Your task to perform on an android device: toggle pop-ups in chrome Image 0: 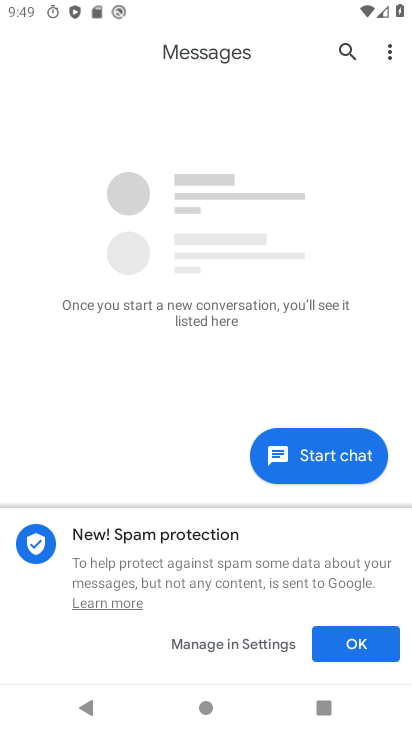
Step 0: press home button
Your task to perform on an android device: toggle pop-ups in chrome Image 1: 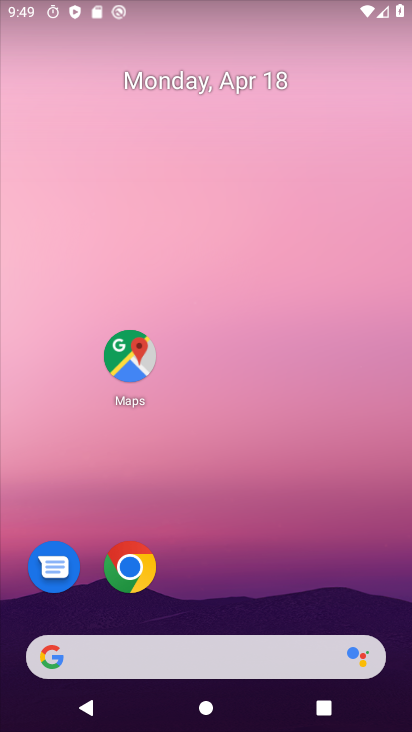
Step 1: click (138, 562)
Your task to perform on an android device: toggle pop-ups in chrome Image 2: 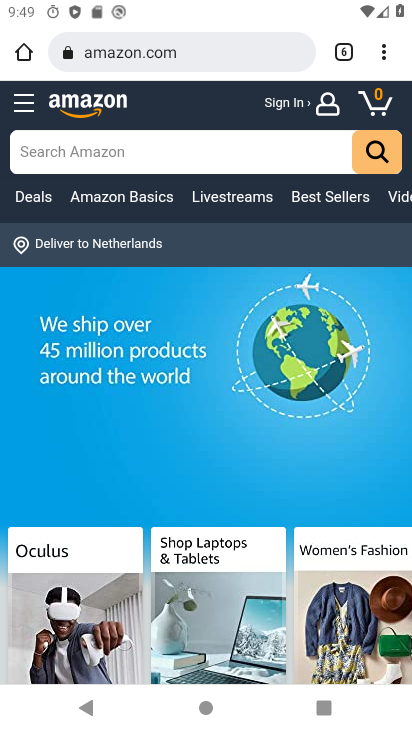
Step 2: click (376, 53)
Your task to perform on an android device: toggle pop-ups in chrome Image 3: 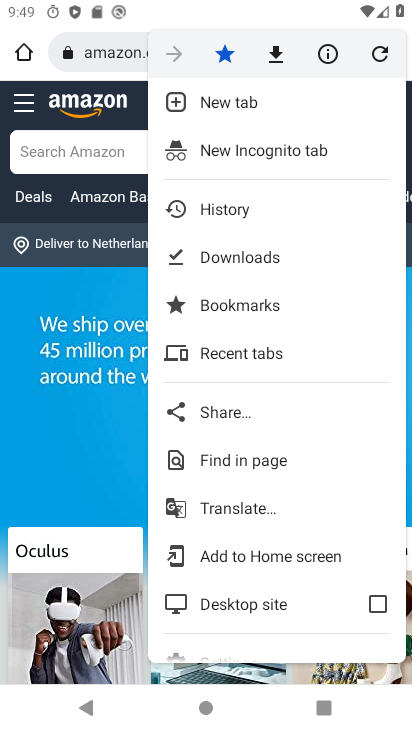
Step 3: drag from (283, 449) to (304, 291)
Your task to perform on an android device: toggle pop-ups in chrome Image 4: 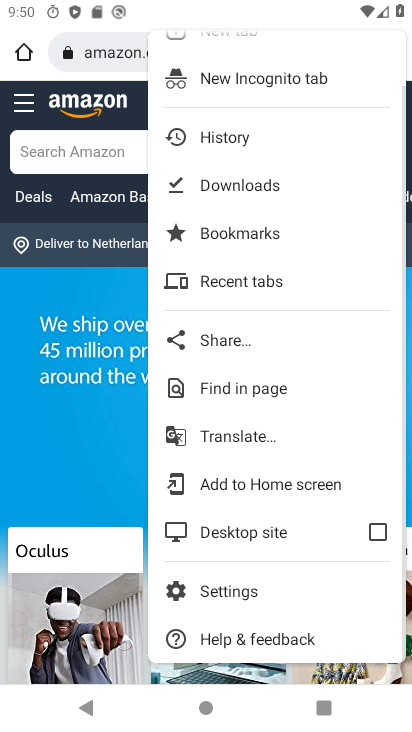
Step 4: click (219, 592)
Your task to perform on an android device: toggle pop-ups in chrome Image 5: 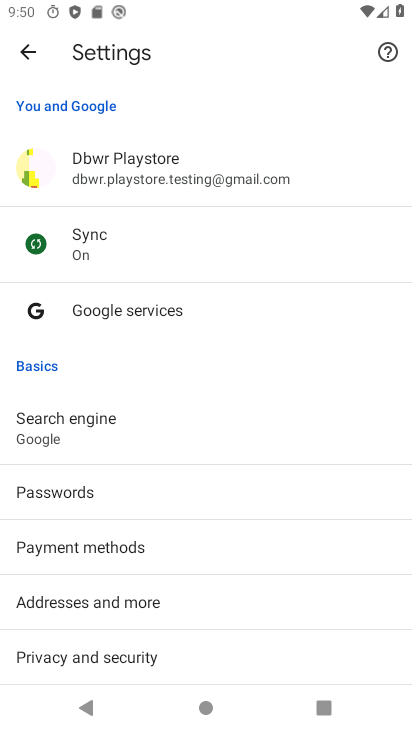
Step 5: drag from (162, 607) to (237, 443)
Your task to perform on an android device: toggle pop-ups in chrome Image 6: 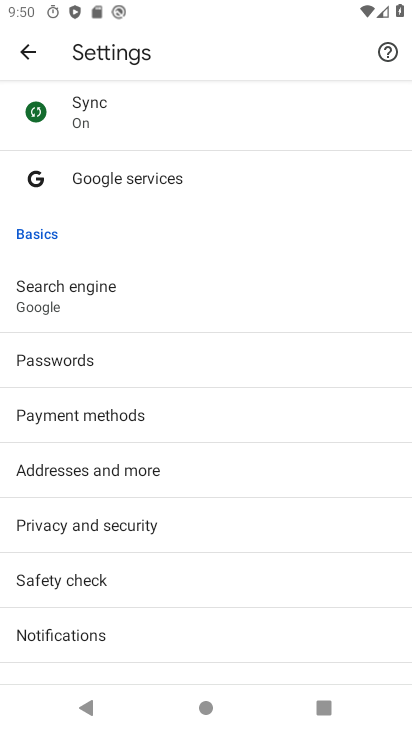
Step 6: drag from (115, 638) to (249, 349)
Your task to perform on an android device: toggle pop-ups in chrome Image 7: 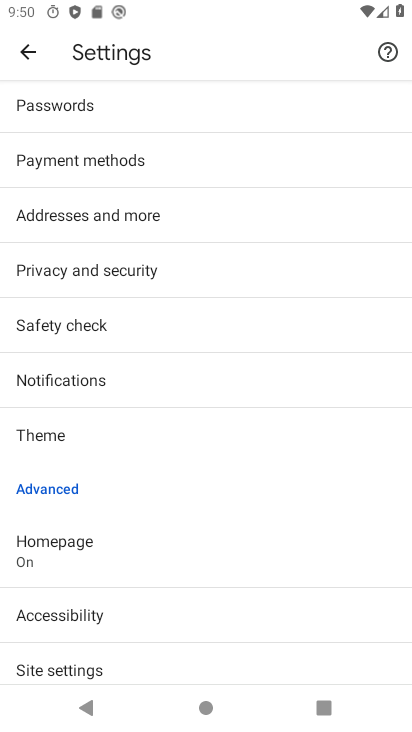
Step 7: click (72, 663)
Your task to perform on an android device: toggle pop-ups in chrome Image 8: 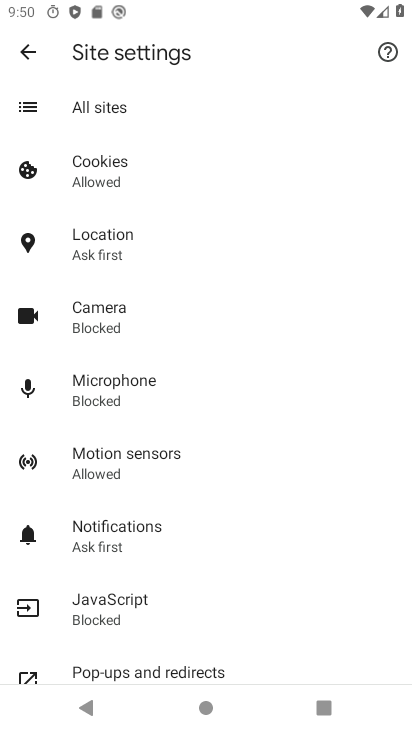
Step 8: click (121, 662)
Your task to perform on an android device: toggle pop-ups in chrome Image 9: 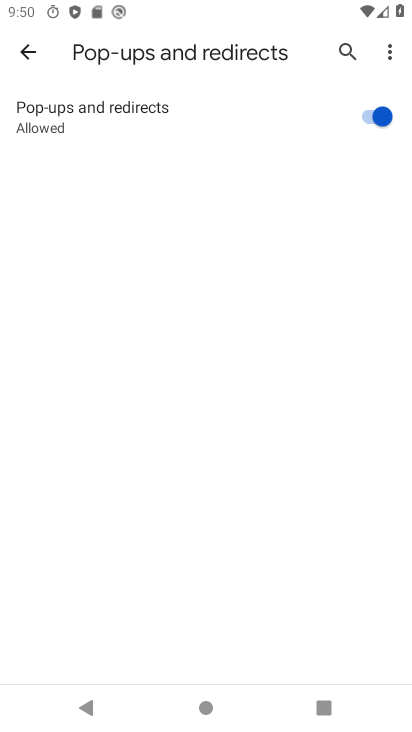
Step 9: task complete